Your task to perform on an android device: turn on airplane mode Image 0: 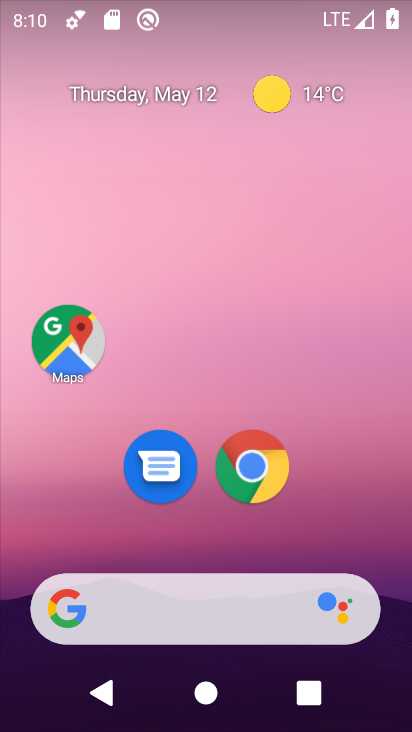
Step 0: drag from (225, 14) to (195, 644)
Your task to perform on an android device: turn on airplane mode Image 1: 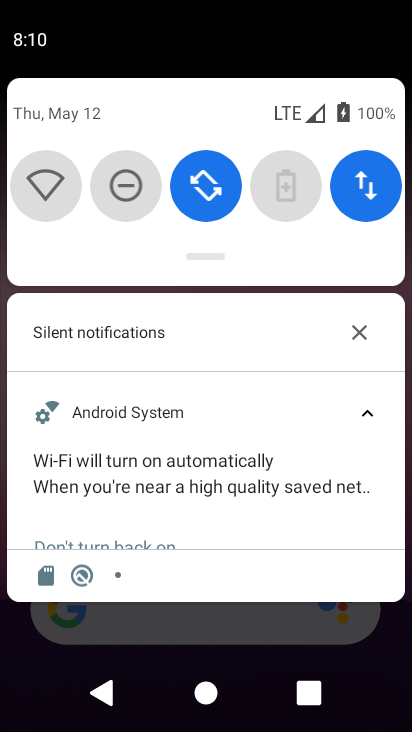
Step 1: drag from (219, 259) to (229, 722)
Your task to perform on an android device: turn on airplane mode Image 2: 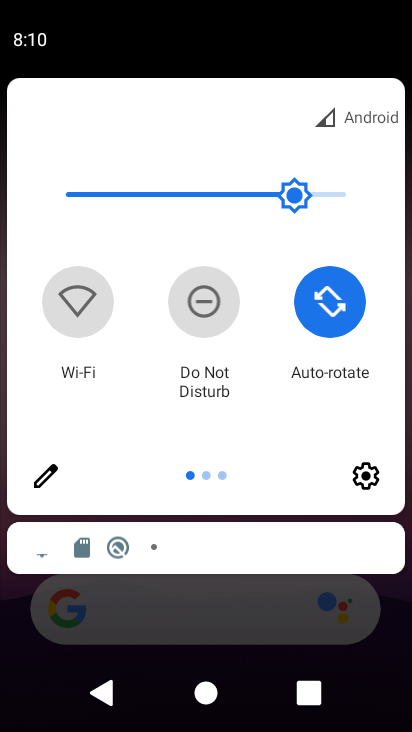
Step 2: drag from (354, 329) to (1, 313)
Your task to perform on an android device: turn on airplane mode Image 3: 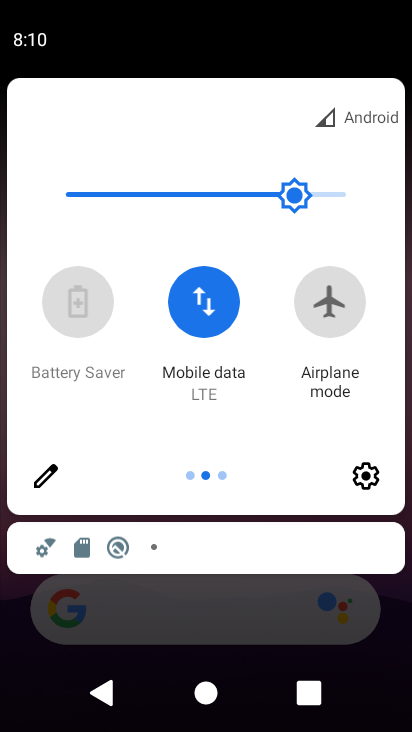
Step 3: click (339, 310)
Your task to perform on an android device: turn on airplane mode Image 4: 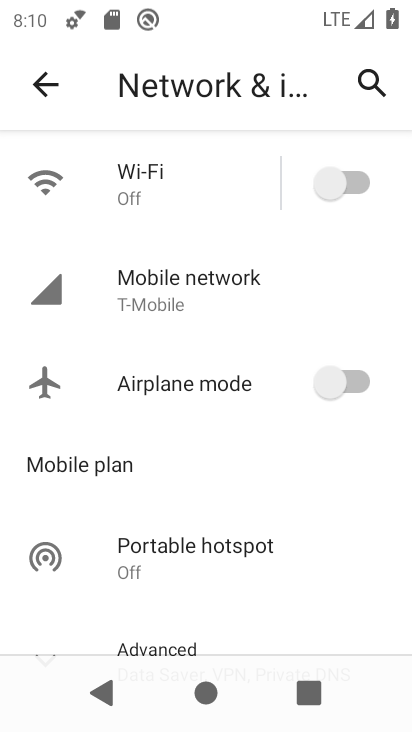
Step 4: click (355, 380)
Your task to perform on an android device: turn on airplane mode Image 5: 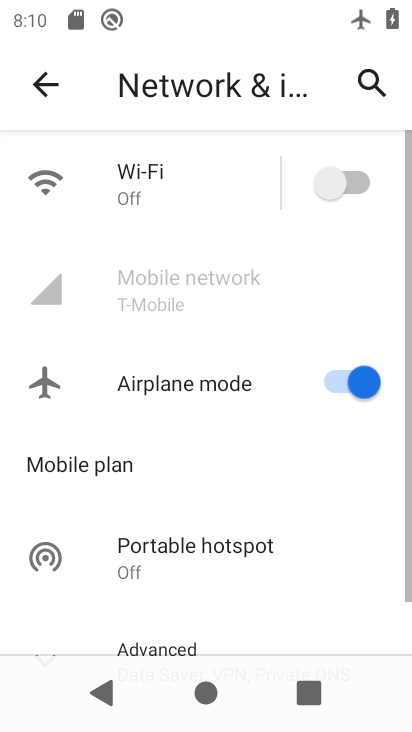
Step 5: task complete